Your task to perform on an android device: change notifications settings Image 0: 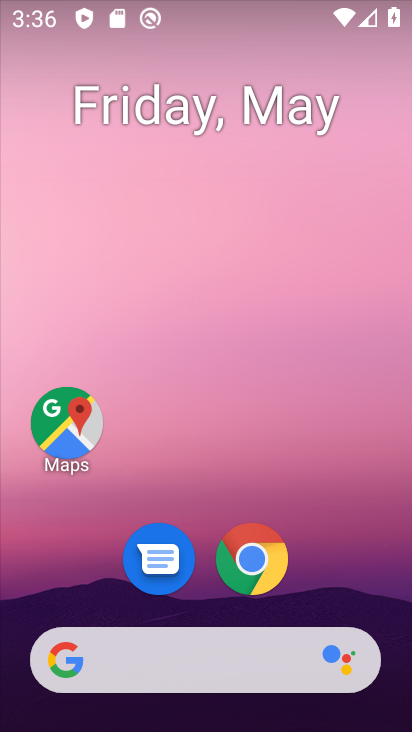
Step 0: drag from (326, 530) to (343, 56)
Your task to perform on an android device: change notifications settings Image 1: 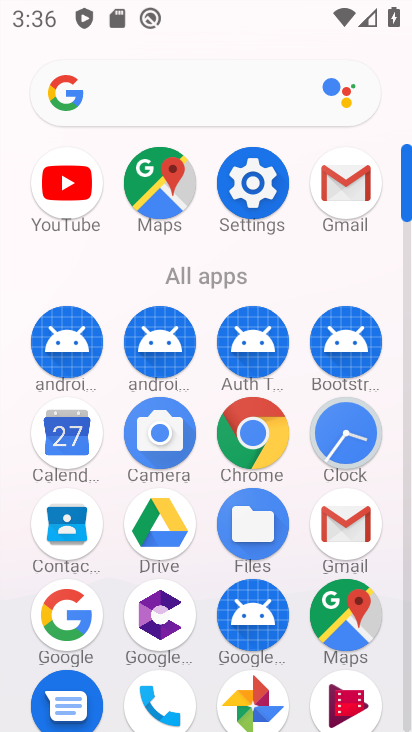
Step 1: click (236, 171)
Your task to perform on an android device: change notifications settings Image 2: 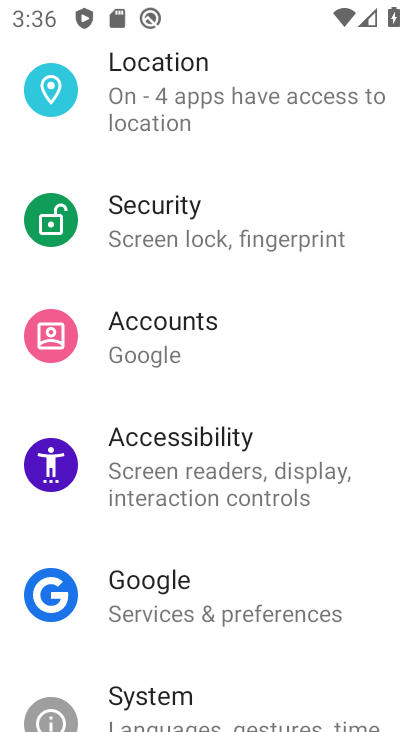
Step 2: drag from (238, 206) to (237, 657)
Your task to perform on an android device: change notifications settings Image 3: 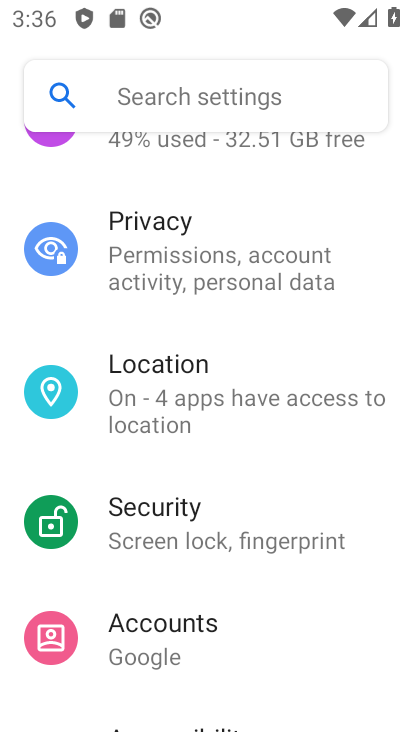
Step 3: drag from (252, 260) to (329, 678)
Your task to perform on an android device: change notifications settings Image 4: 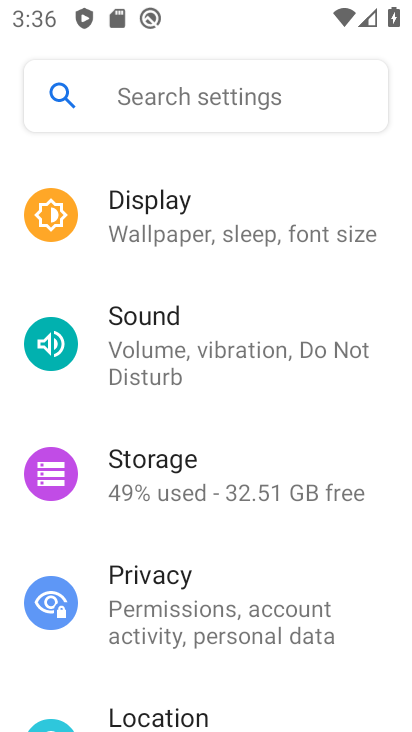
Step 4: drag from (298, 284) to (274, 669)
Your task to perform on an android device: change notifications settings Image 5: 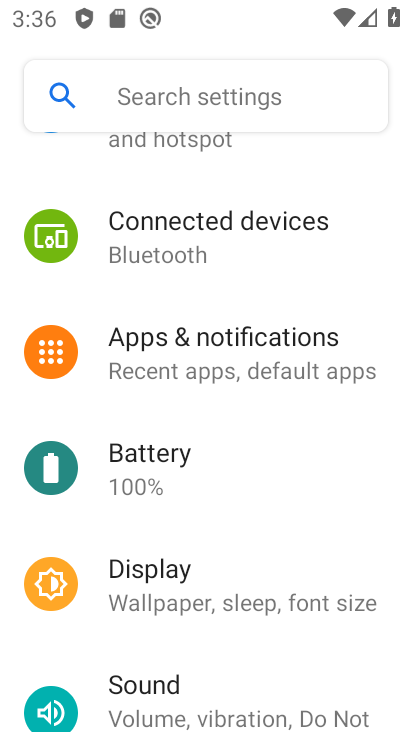
Step 5: click (230, 367)
Your task to perform on an android device: change notifications settings Image 6: 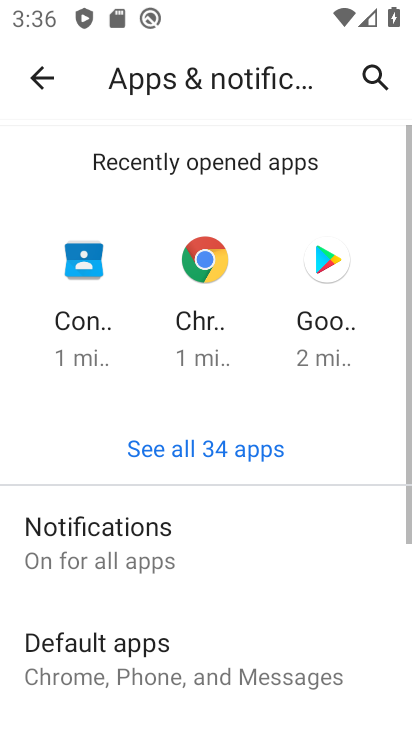
Step 6: click (193, 549)
Your task to perform on an android device: change notifications settings Image 7: 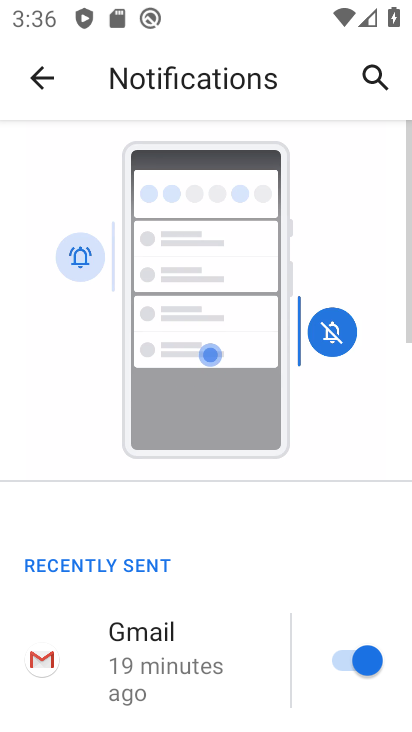
Step 7: drag from (170, 652) to (224, 194)
Your task to perform on an android device: change notifications settings Image 8: 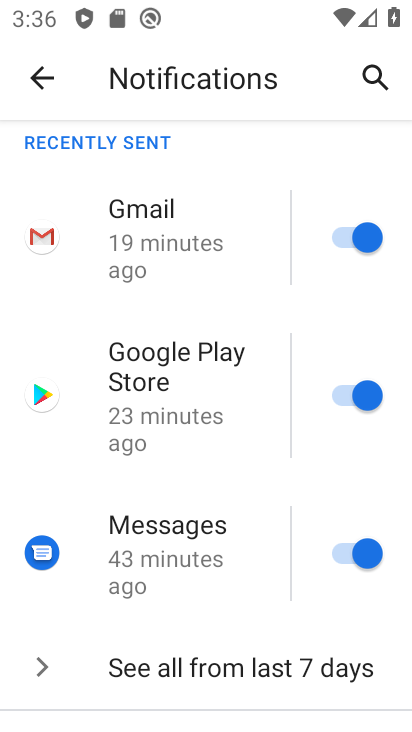
Step 8: drag from (202, 562) to (246, 216)
Your task to perform on an android device: change notifications settings Image 9: 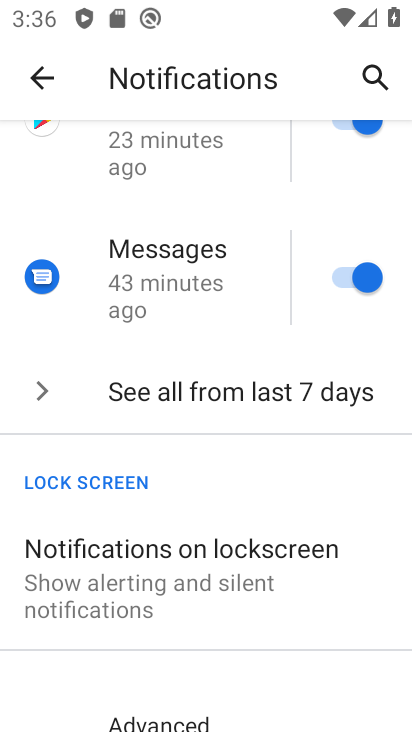
Step 9: drag from (203, 633) to (248, 269)
Your task to perform on an android device: change notifications settings Image 10: 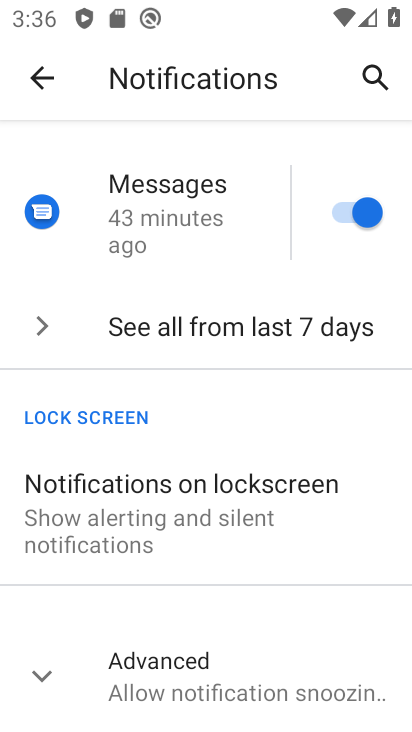
Step 10: click (203, 511)
Your task to perform on an android device: change notifications settings Image 11: 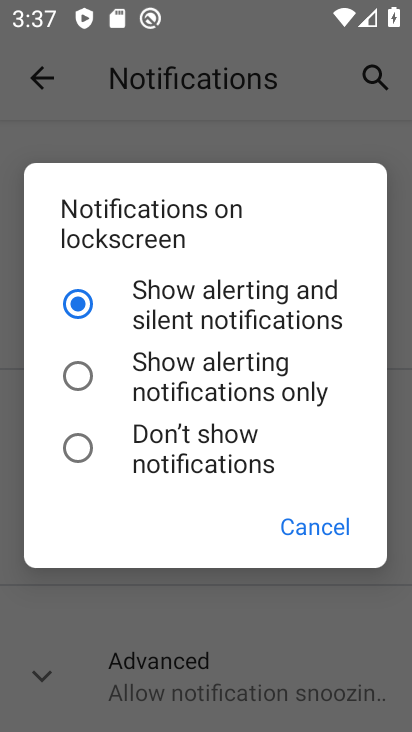
Step 11: click (78, 448)
Your task to perform on an android device: change notifications settings Image 12: 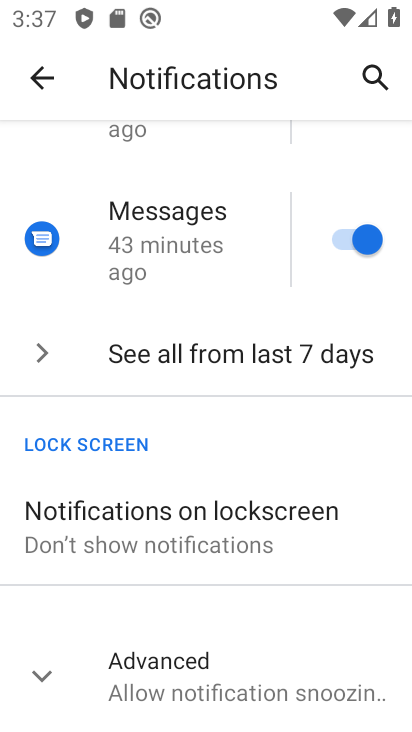
Step 12: task complete